Your task to perform on an android device: turn on sleep mode Image 0: 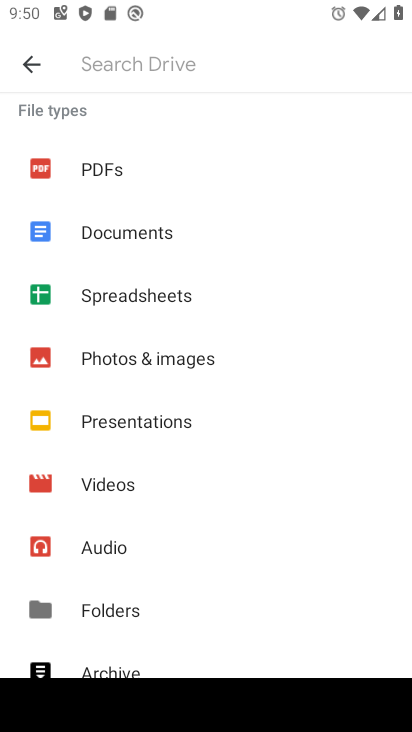
Step 0: click (355, 136)
Your task to perform on an android device: turn on sleep mode Image 1: 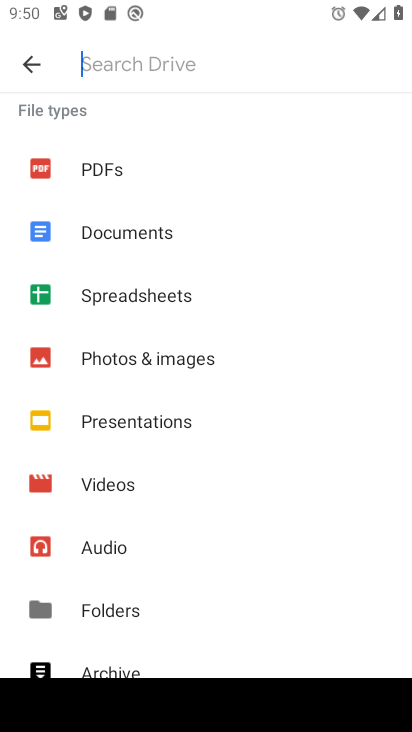
Step 1: press home button
Your task to perform on an android device: turn on sleep mode Image 2: 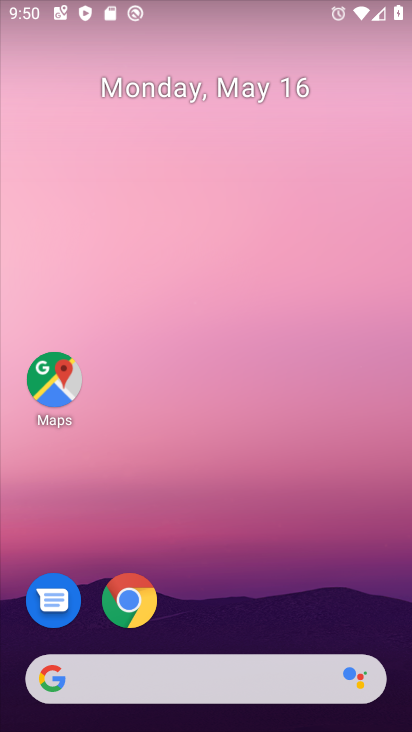
Step 2: drag from (156, 531) to (274, 33)
Your task to perform on an android device: turn on sleep mode Image 3: 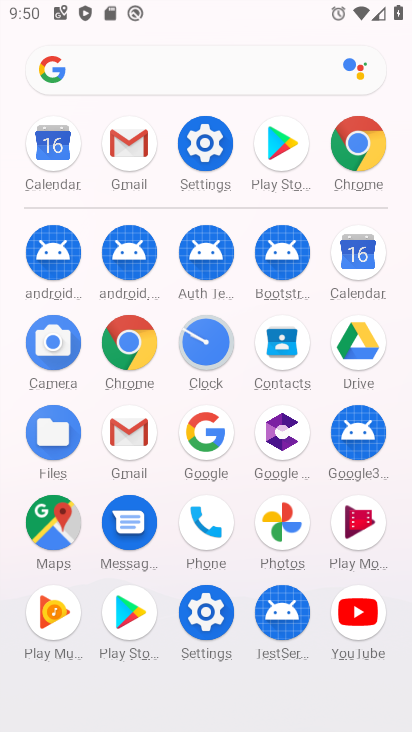
Step 3: click (201, 135)
Your task to perform on an android device: turn on sleep mode Image 4: 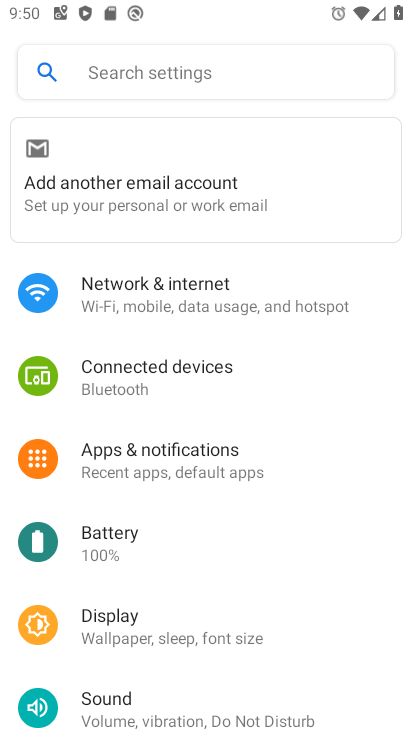
Step 4: drag from (188, 683) to (229, 339)
Your task to perform on an android device: turn on sleep mode Image 5: 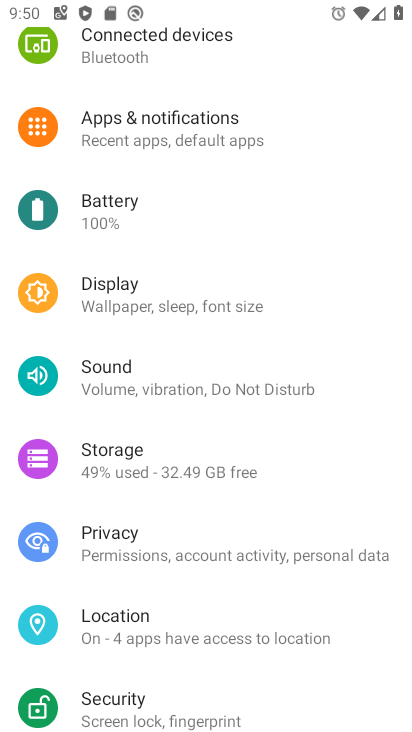
Step 5: click (167, 279)
Your task to perform on an android device: turn on sleep mode Image 6: 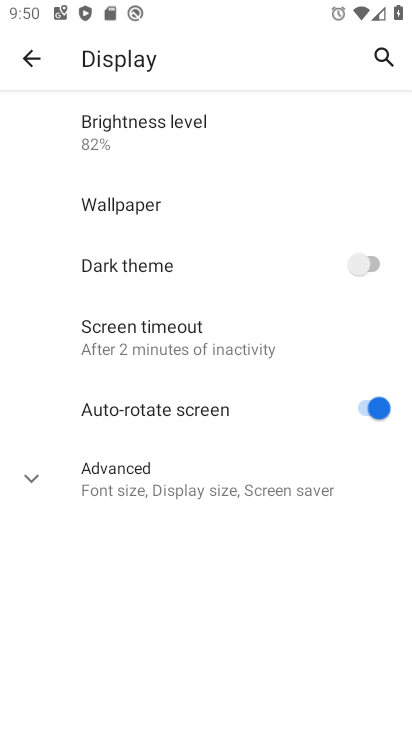
Step 6: click (170, 319)
Your task to perform on an android device: turn on sleep mode Image 7: 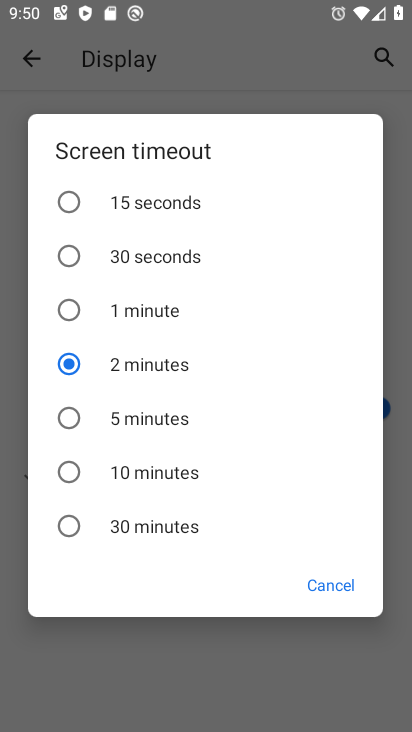
Step 7: click (78, 261)
Your task to perform on an android device: turn on sleep mode Image 8: 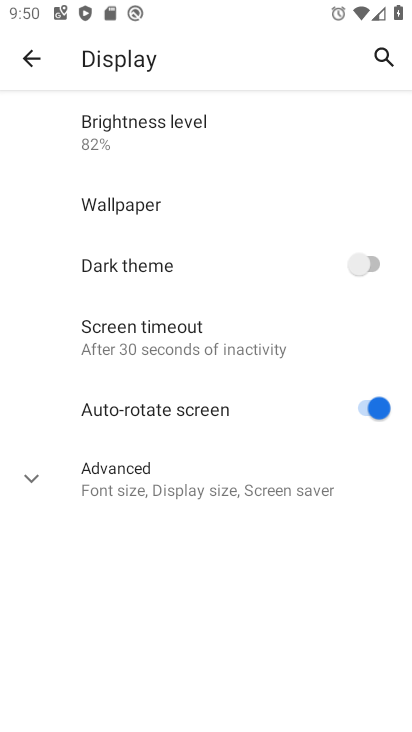
Step 8: task complete